Your task to perform on an android device: Open battery settings Image 0: 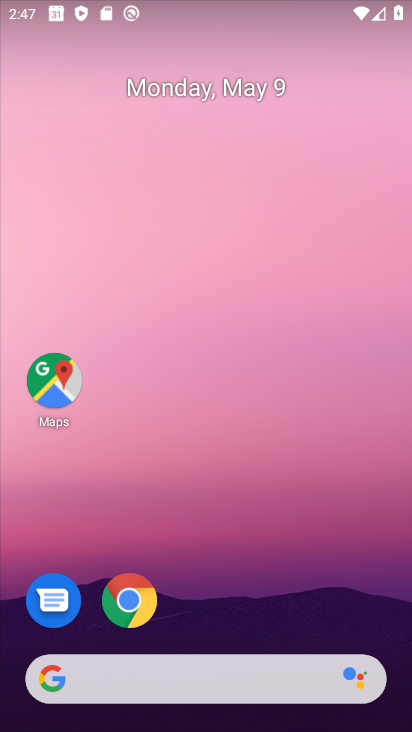
Step 0: drag from (233, 714) to (231, 198)
Your task to perform on an android device: Open battery settings Image 1: 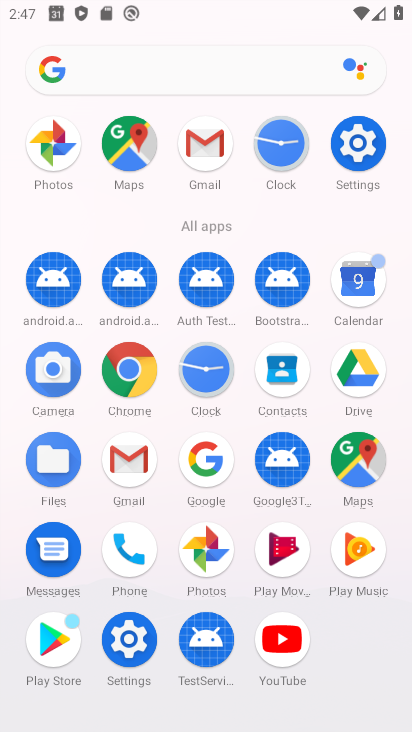
Step 1: click (366, 139)
Your task to perform on an android device: Open battery settings Image 2: 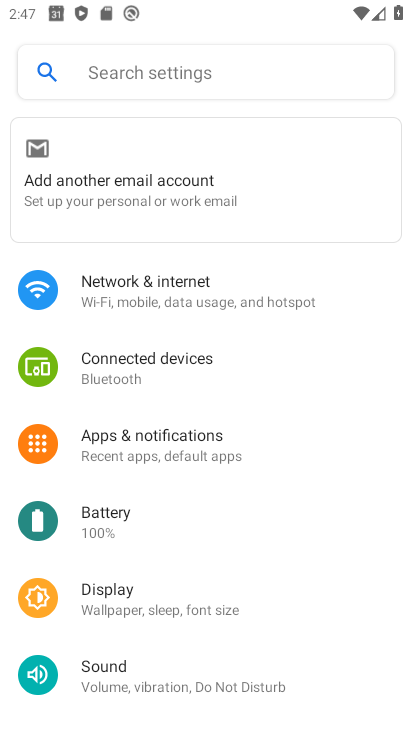
Step 2: click (101, 518)
Your task to perform on an android device: Open battery settings Image 3: 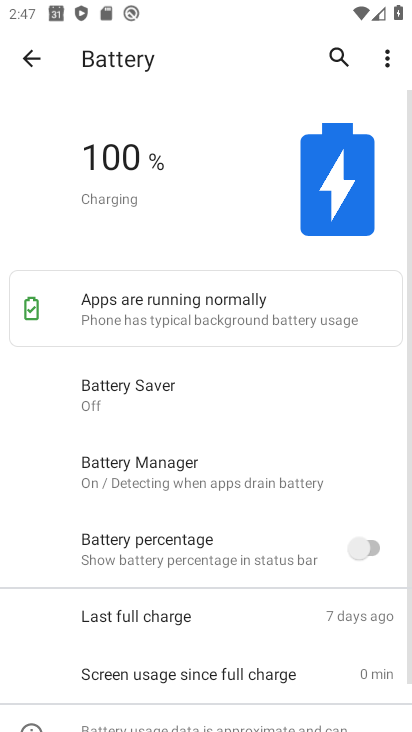
Step 3: task complete